Your task to perform on an android device: Open settings Image 0: 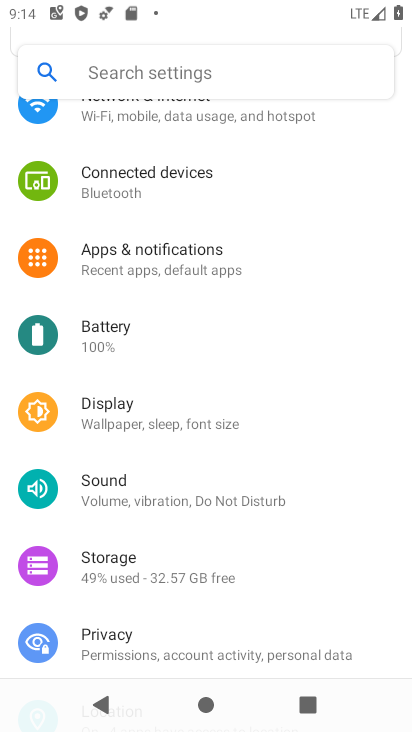
Step 0: drag from (340, 594) to (293, 194)
Your task to perform on an android device: Open settings Image 1: 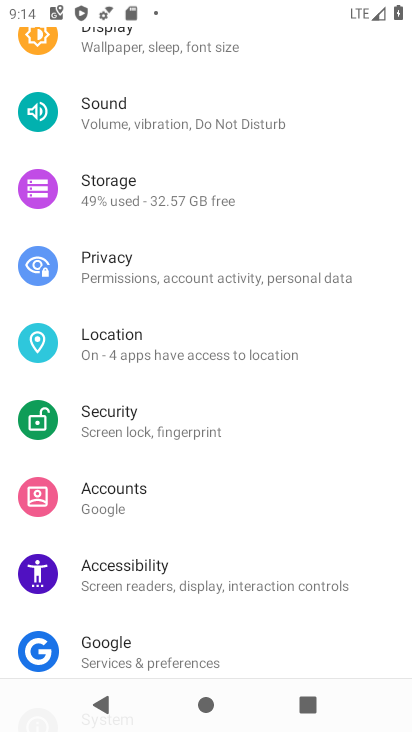
Step 1: task complete